Your task to perform on an android device: Go to network settings Image 0: 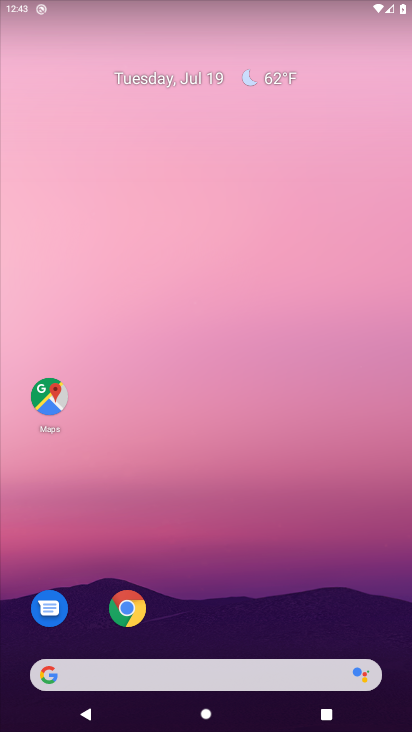
Step 0: press home button
Your task to perform on an android device: Go to network settings Image 1: 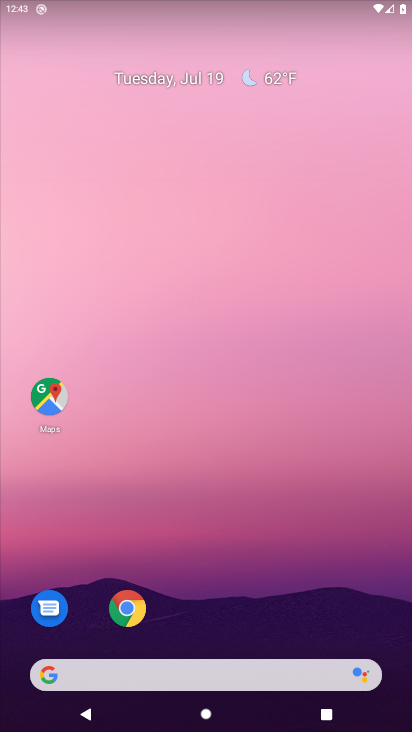
Step 1: drag from (230, 640) to (225, 14)
Your task to perform on an android device: Go to network settings Image 2: 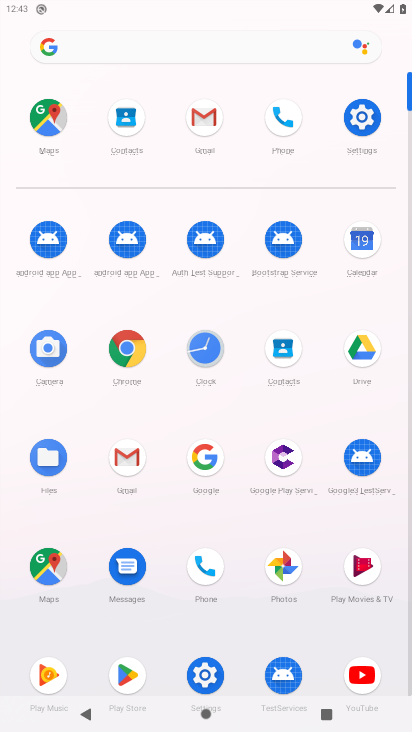
Step 2: click (358, 111)
Your task to perform on an android device: Go to network settings Image 3: 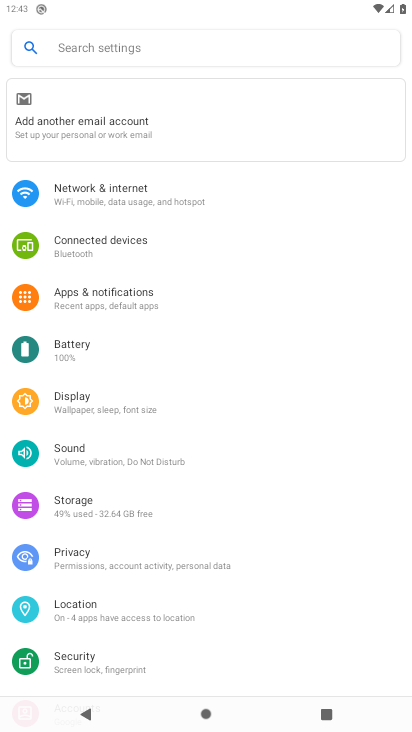
Step 3: click (166, 190)
Your task to perform on an android device: Go to network settings Image 4: 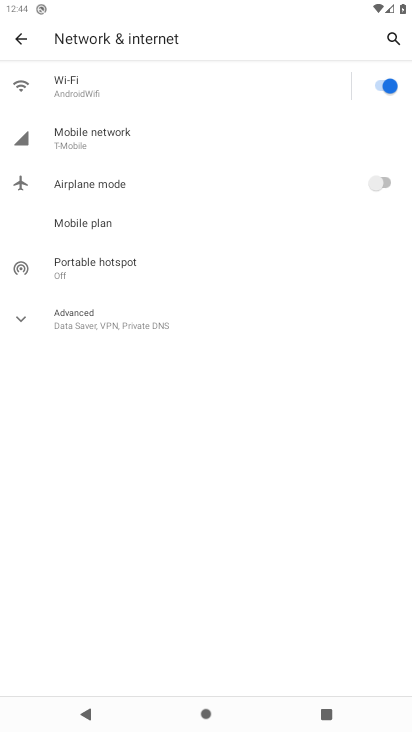
Step 4: click (19, 317)
Your task to perform on an android device: Go to network settings Image 5: 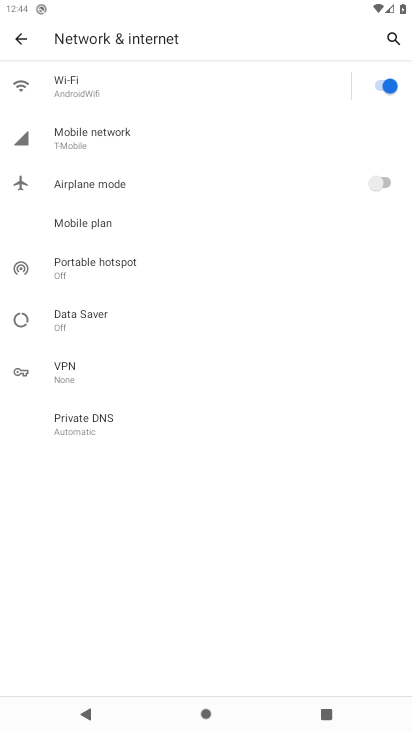
Step 5: task complete